Your task to perform on an android device: Search for usb-a to usb-b on target.com, select the first entry, and add it to the cart. Image 0: 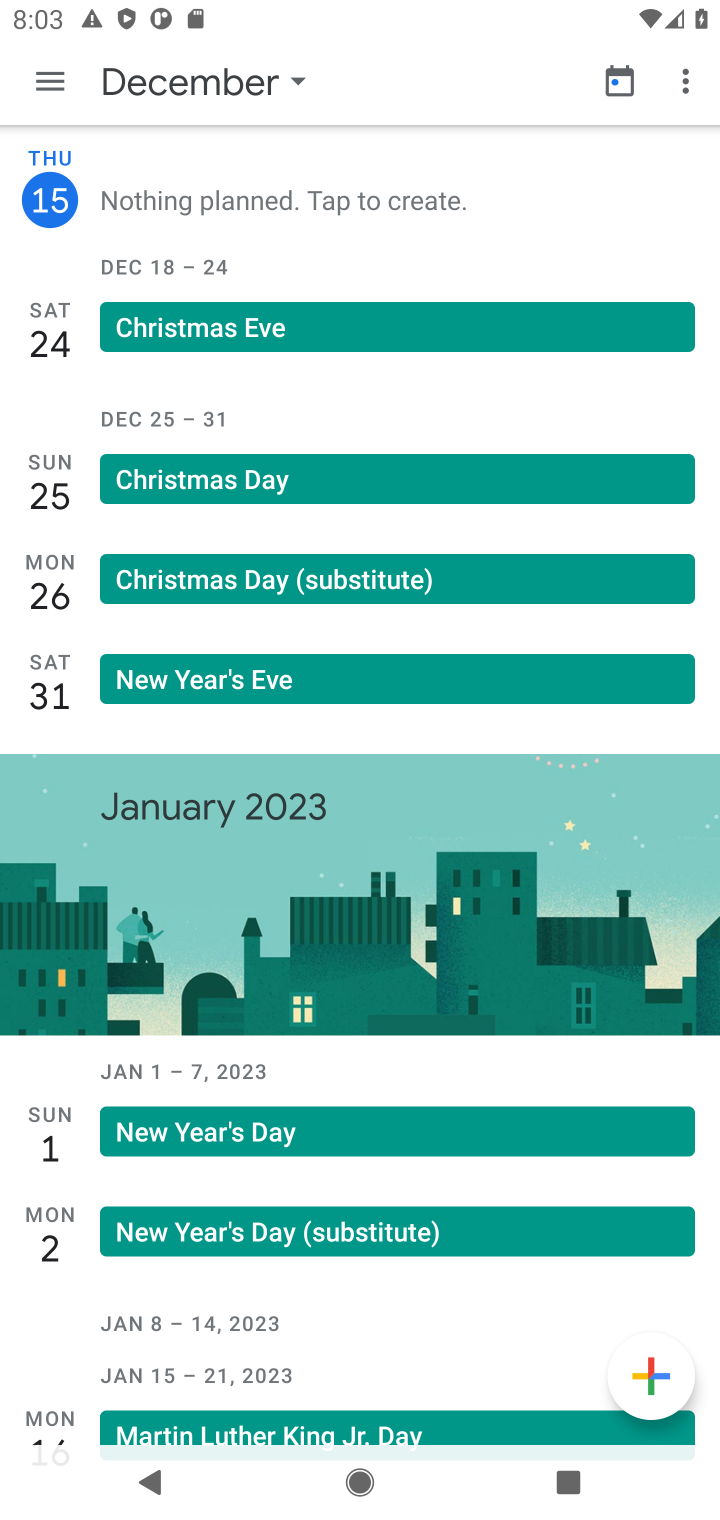
Step 0: press home button
Your task to perform on an android device: Search for usb-a to usb-b on target.com, select the first entry, and add it to the cart. Image 1: 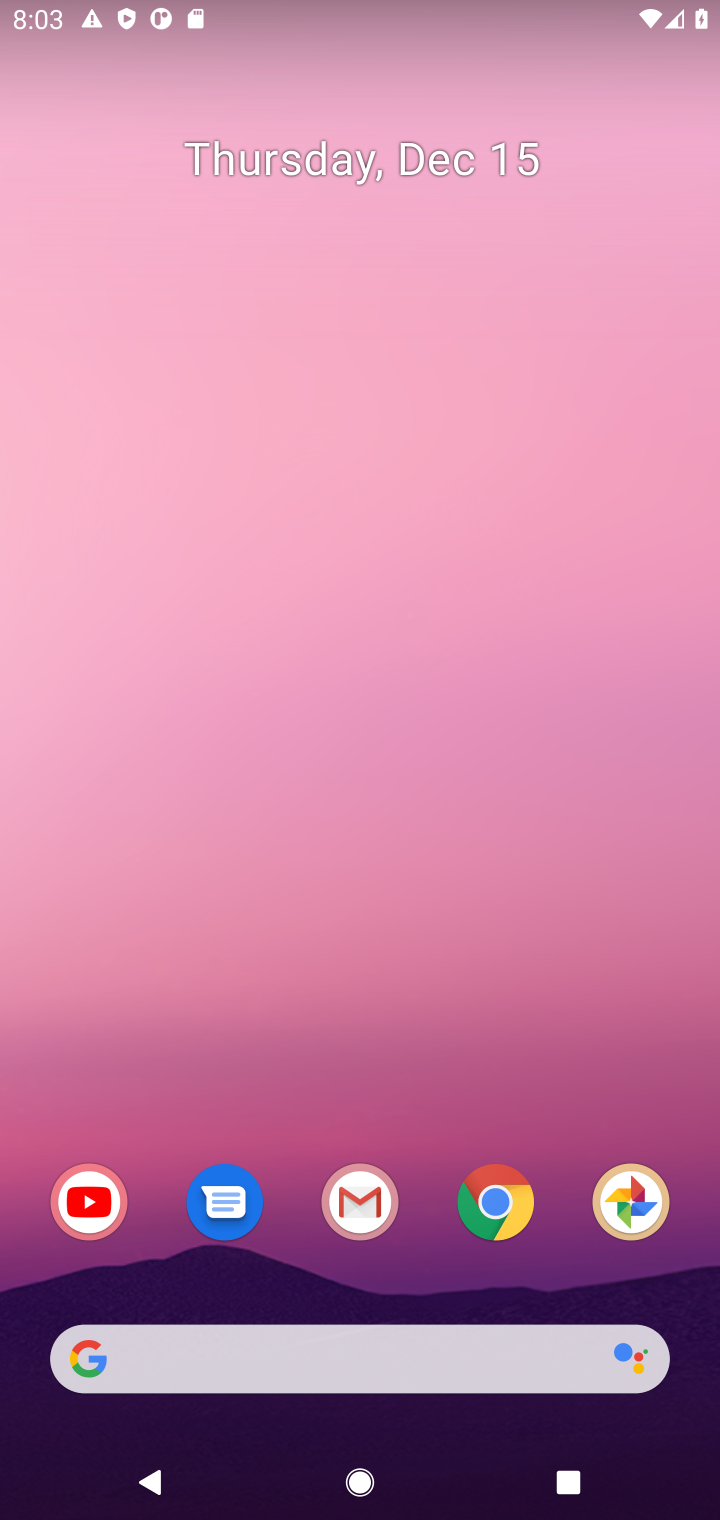
Step 1: click (501, 1206)
Your task to perform on an android device: Search for usb-a to usb-b on target.com, select the first entry, and add it to the cart. Image 2: 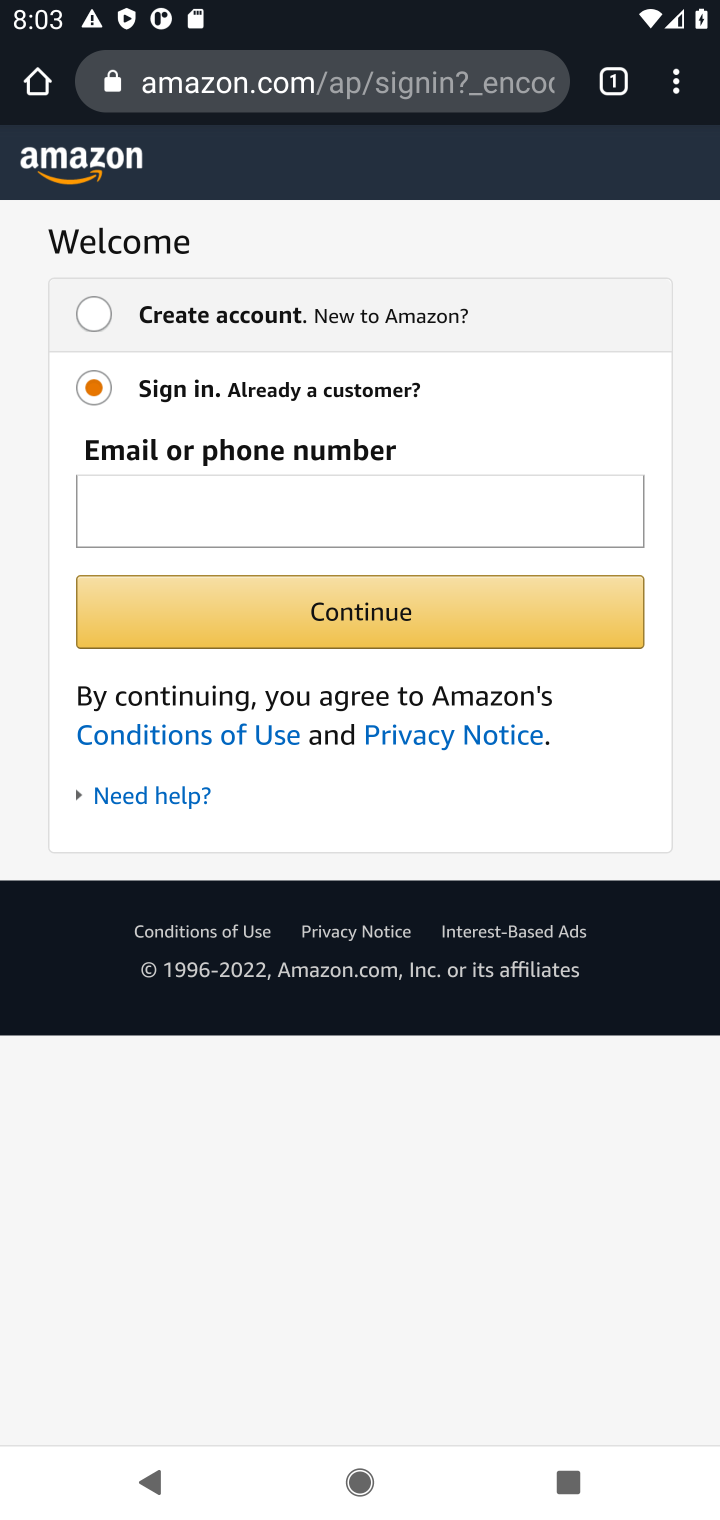
Step 2: click (251, 90)
Your task to perform on an android device: Search for usb-a to usb-b on target.com, select the first entry, and add it to the cart. Image 3: 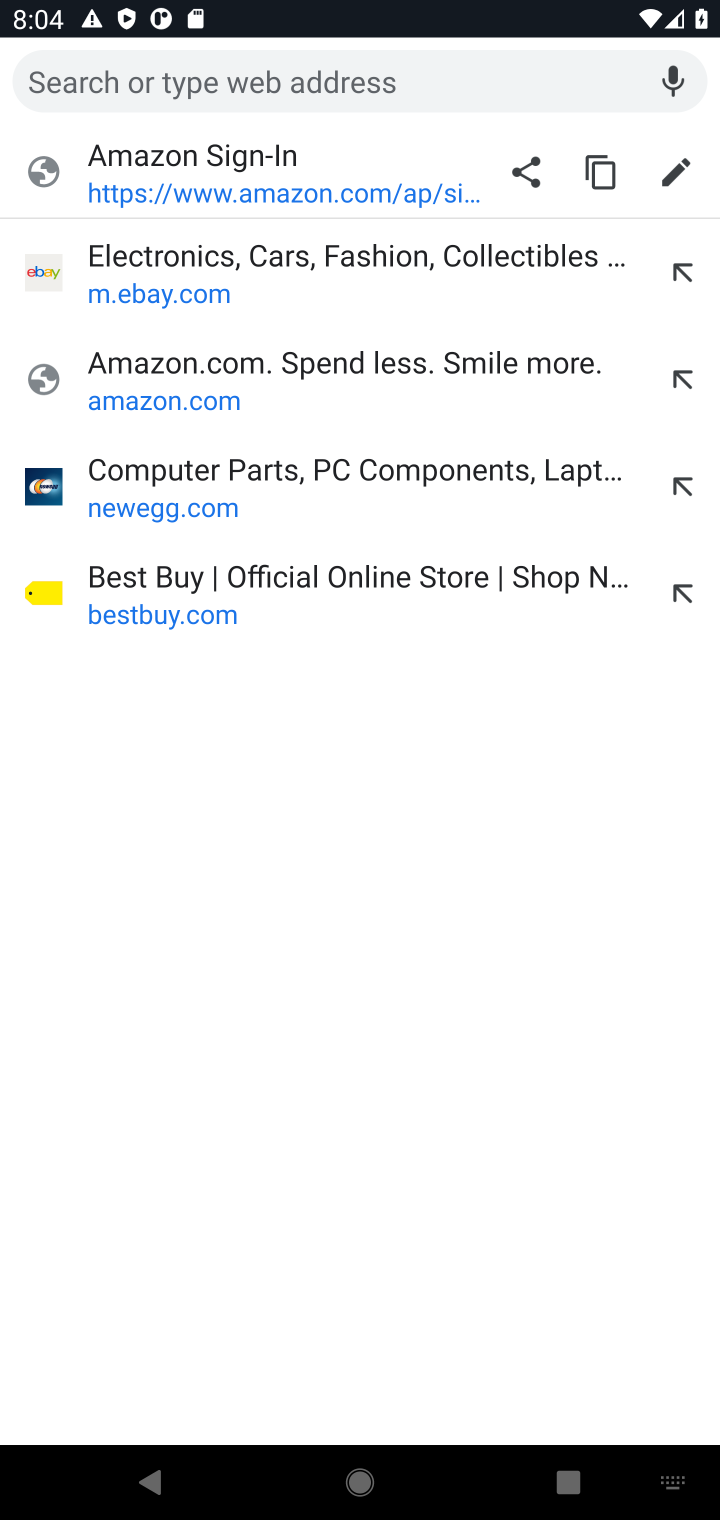
Step 3: type "target.com"
Your task to perform on an android device: Search for usb-a to usb-b on target.com, select the first entry, and add it to the cart. Image 4: 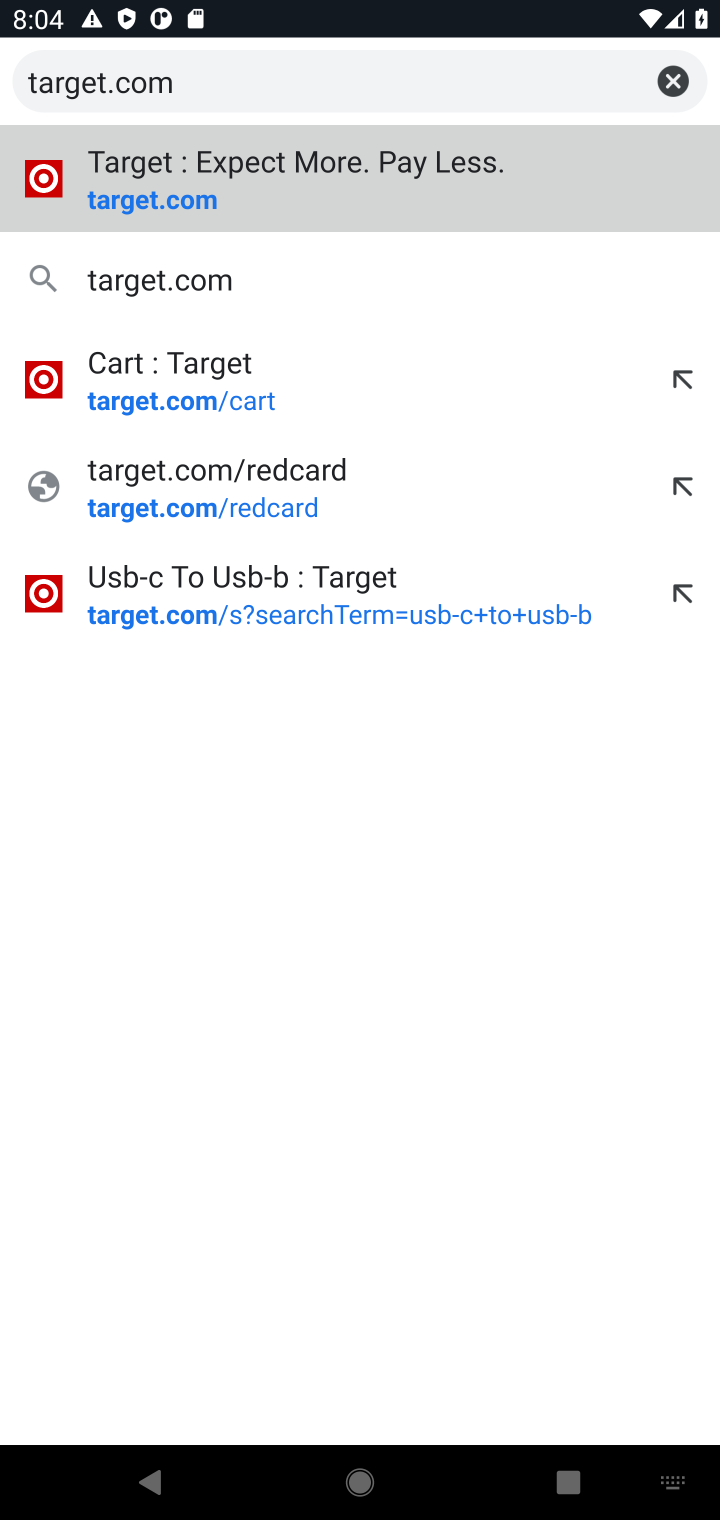
Step 4: click (129, 202)
Your task to perform on an android device: Search for usb-a to usb-b on target.com, select the first entry, and add it to the cart. Image 5: 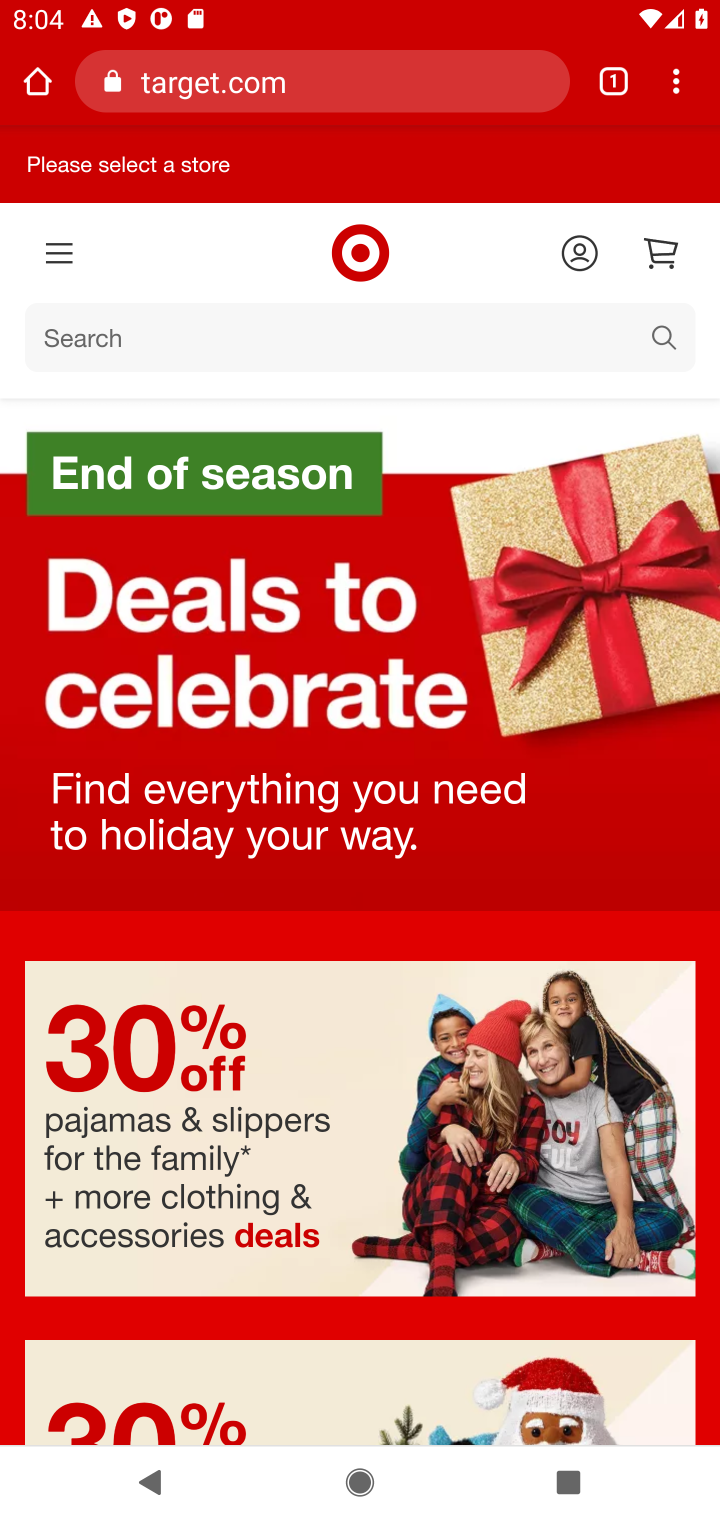
Step 5: click (47, 344)
Your task to perform on an android device: Search for usb-a to usb-b on target.com, select the first entry, and add it to the cart. Image 6: 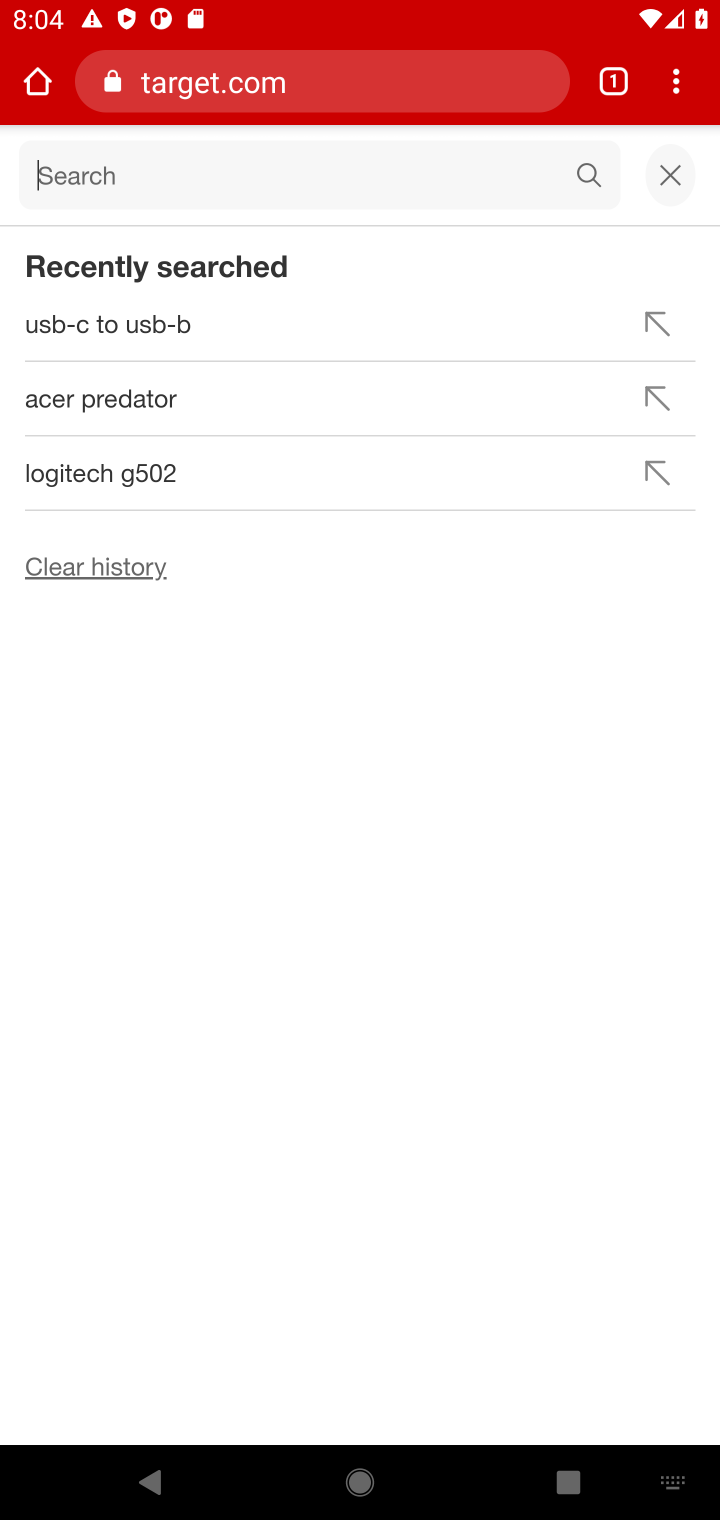
Step 6: type "usb-a to usb-b"
Your task to perform on an android device: Search for usb-a to usb-b on target.com, select the first entry, and add it to the cart. Image 7: 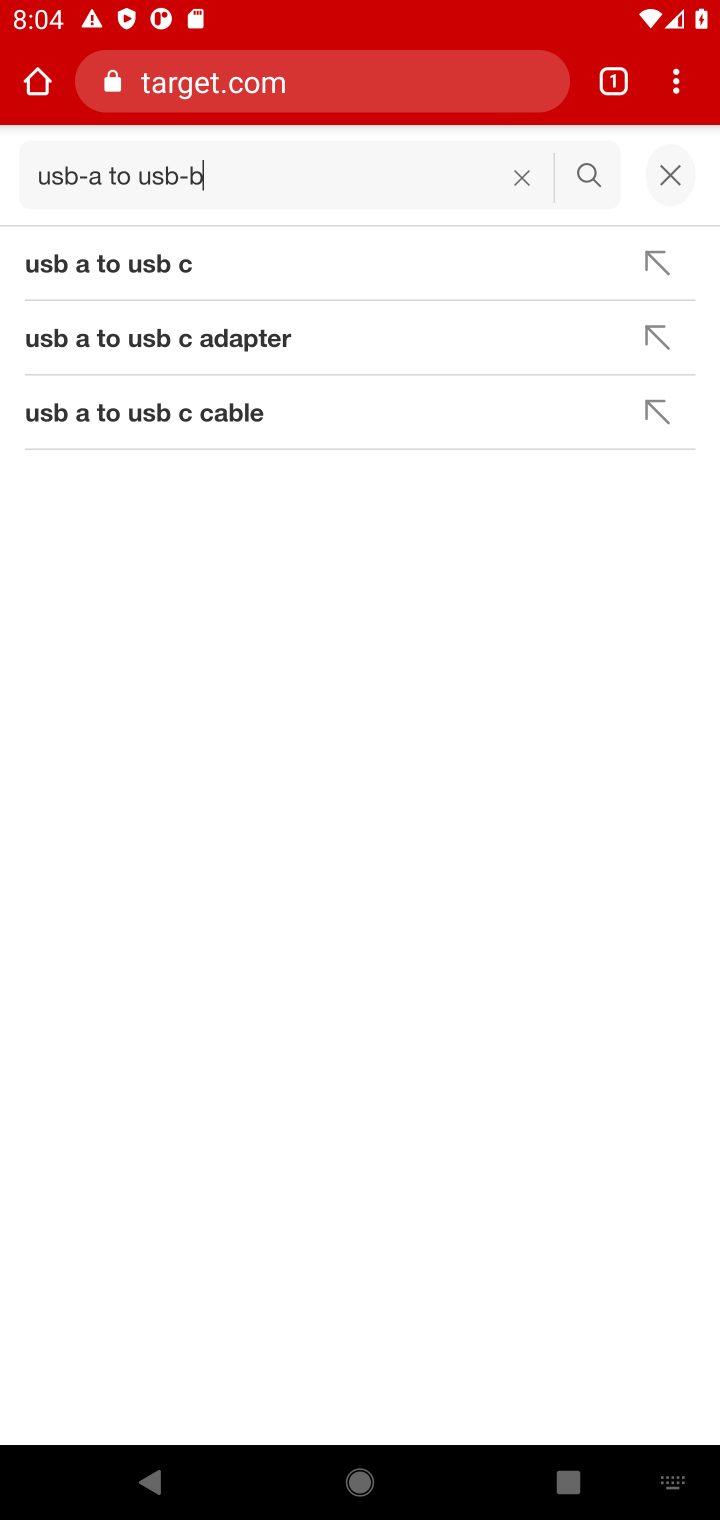
Step 7: click (582, 182)
Your task to perform on an android device: Search for usb-a to usb-b on target.com, select the first entry, and add it to the cart. Image 8: 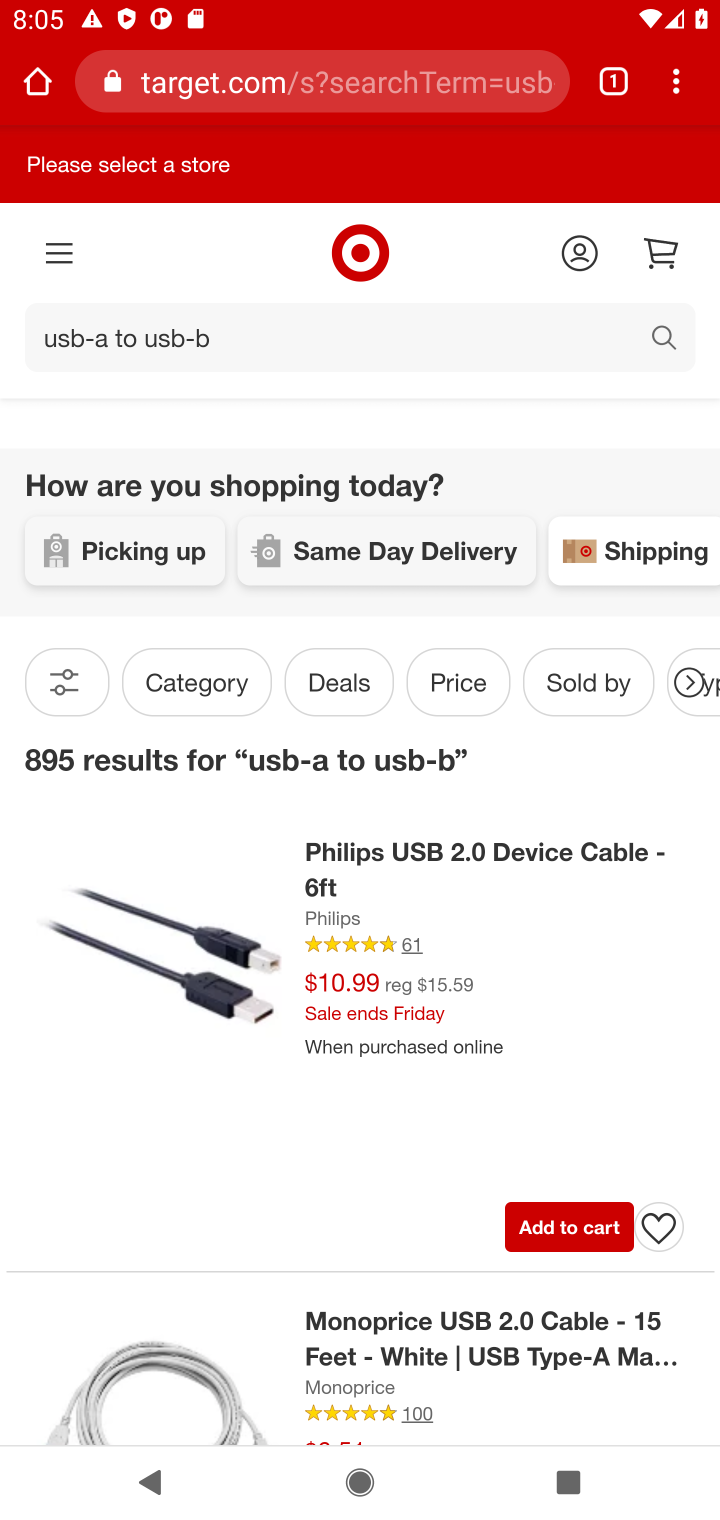
Step 8: click (386, 916)
Your task to perform on an android device: Search for usb-a to usb-b on target.com, select the first entry, and add it to the cart. Image 9: 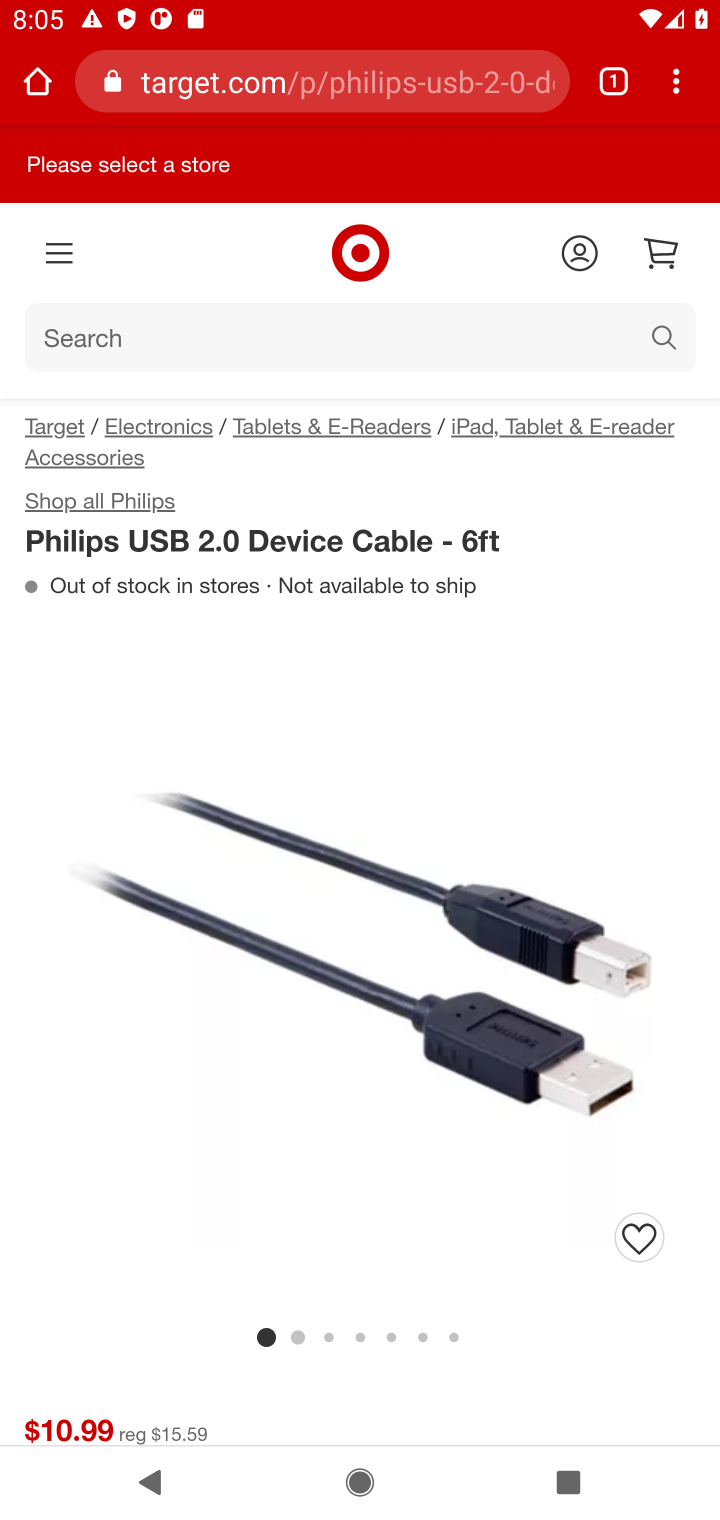
Step 9: task complete